Your task to perform on an android device: Go to Wikipedia Image 0: 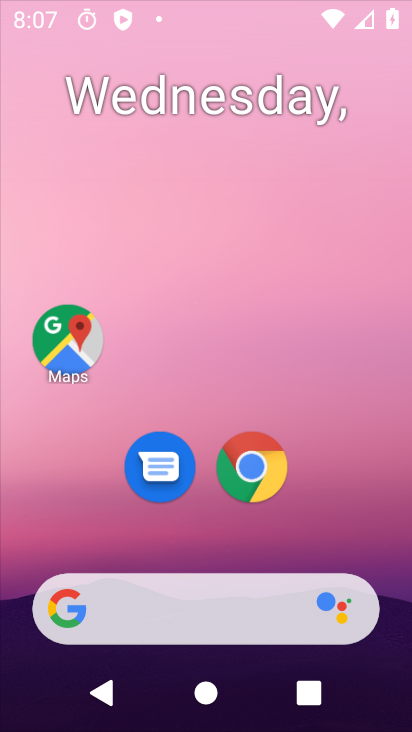
Step 0: drag from (370, 447) to (348, 185)
Your task to perform on an android device: Go to Wikipedia Image 1: 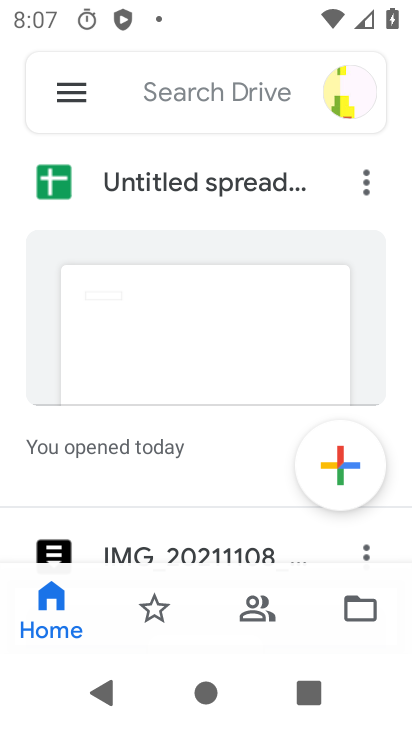
Step 1: press home button
Your task to perform on an android device: Go to Wikipedia Image 2: 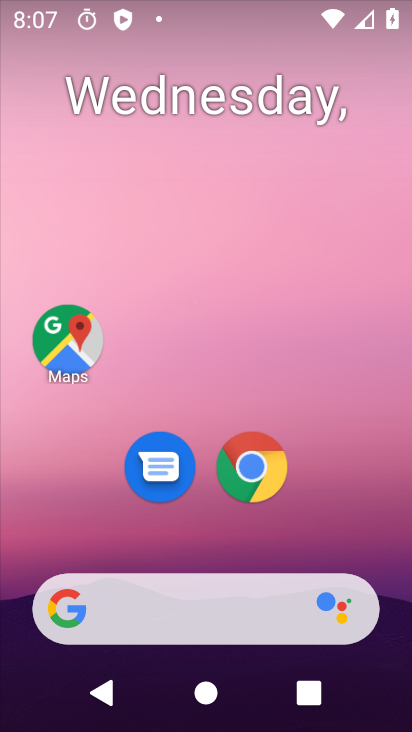
Step 2: click (245, 466)
Your task to perform on an android device: Go to Wikipedia Image 3: 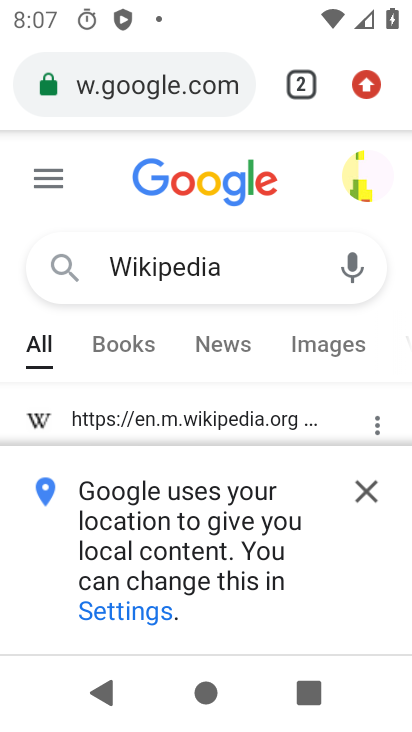
Step 3: task complete